Your task to perform on an android device: Is it going to rain this weekend? Image 0: 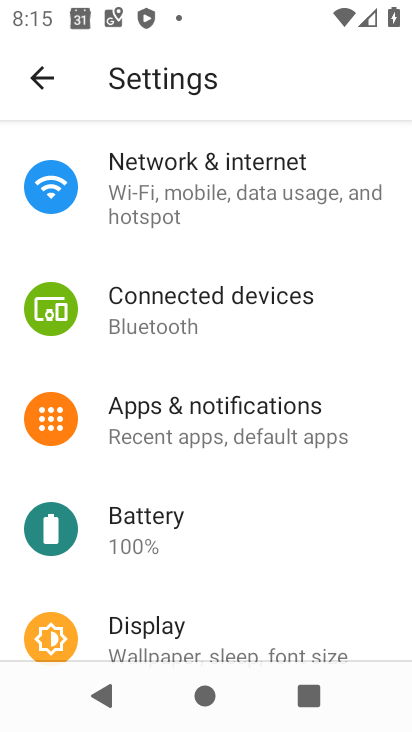
Step 0: press home button
Your task to perform on an android device: Is it going to rain this weekend? Image 1: 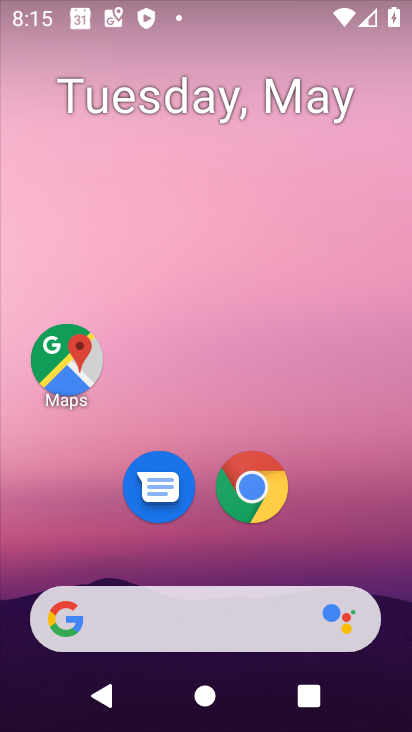
Step 1: click (253, 622)
Your task to perform on an android device: Is it going to rain this weekend? Image 2: 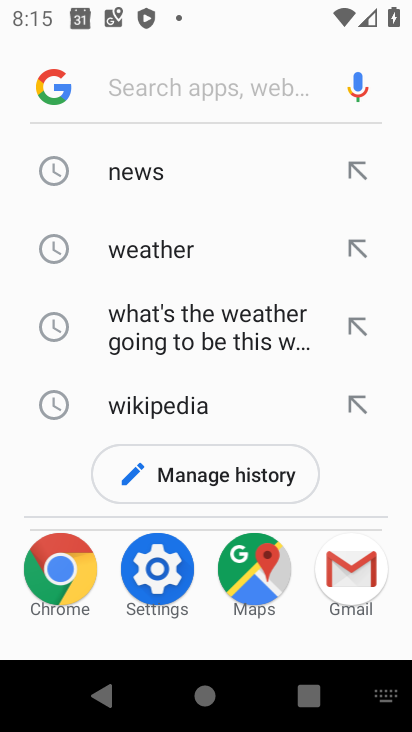
Step 2: click (165, 250)
Your task to perform on an android device: Is it going to rain this weekend? Image 3: 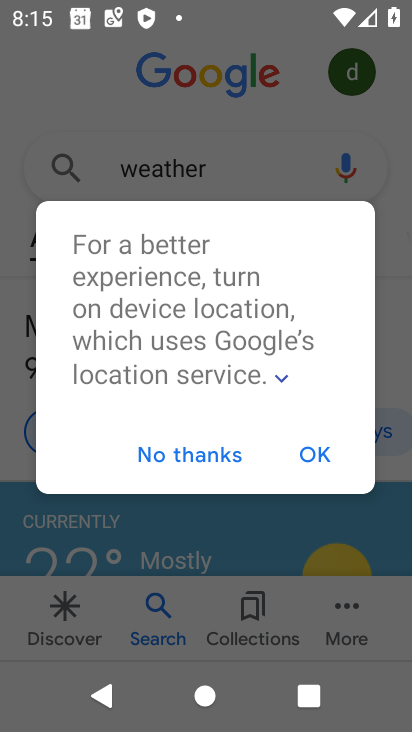
Step 3: click (183, 461)
Your task to perform on an android device: Is it going to rain this weekend? Image 4: 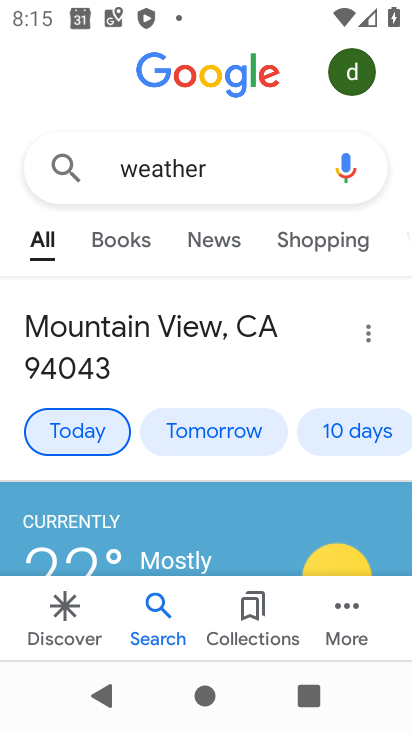
Step 4: click (359, 434)
Your task to perform on an android device: Is it going to rain this weekend? Image 5: 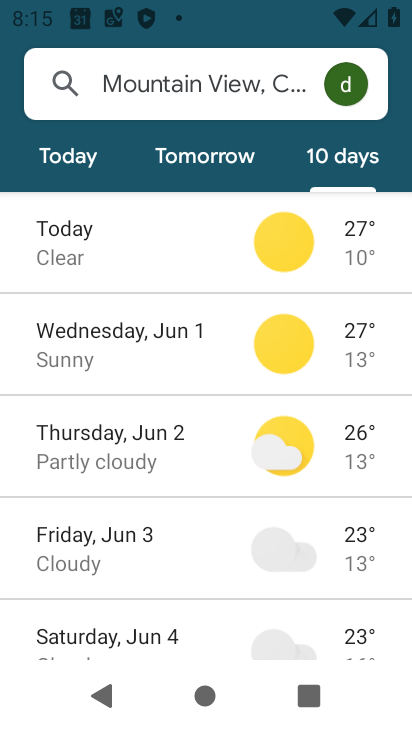
Step 5: click (189, 635)
Your task to perform on an android device: Is it going to rain this weekend? Image 6: 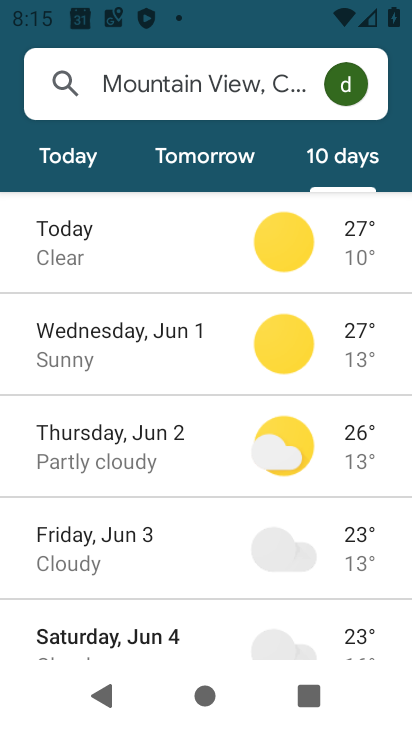
Step 6: task complete